Your task to perform on an android device: Where can I buy a nice beach hat? Image 0: 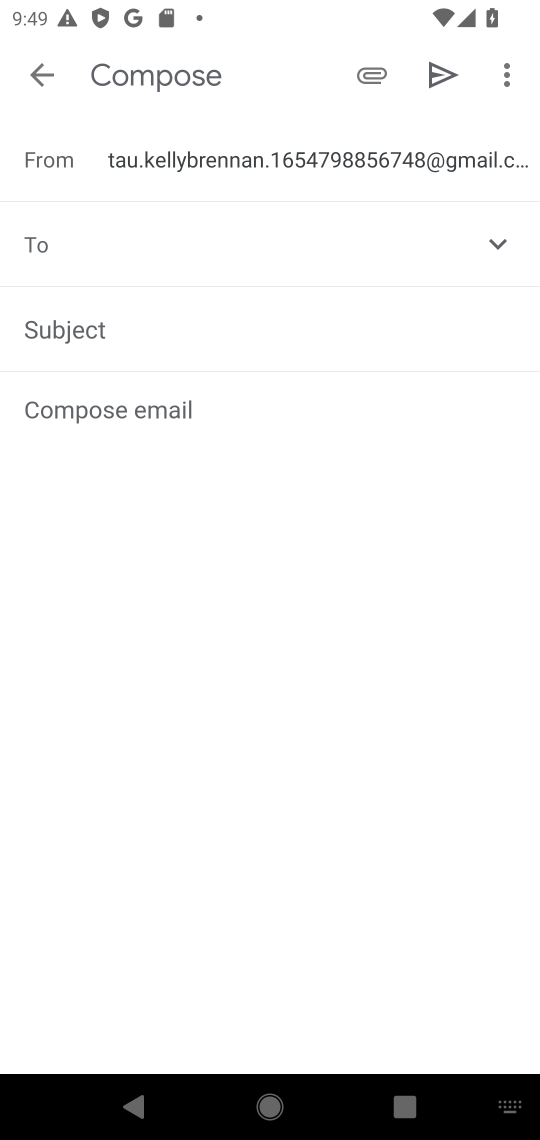
Step 0: press home button
Your task to perform on an android device: Where can I buy a nice beach hat? Image 1: 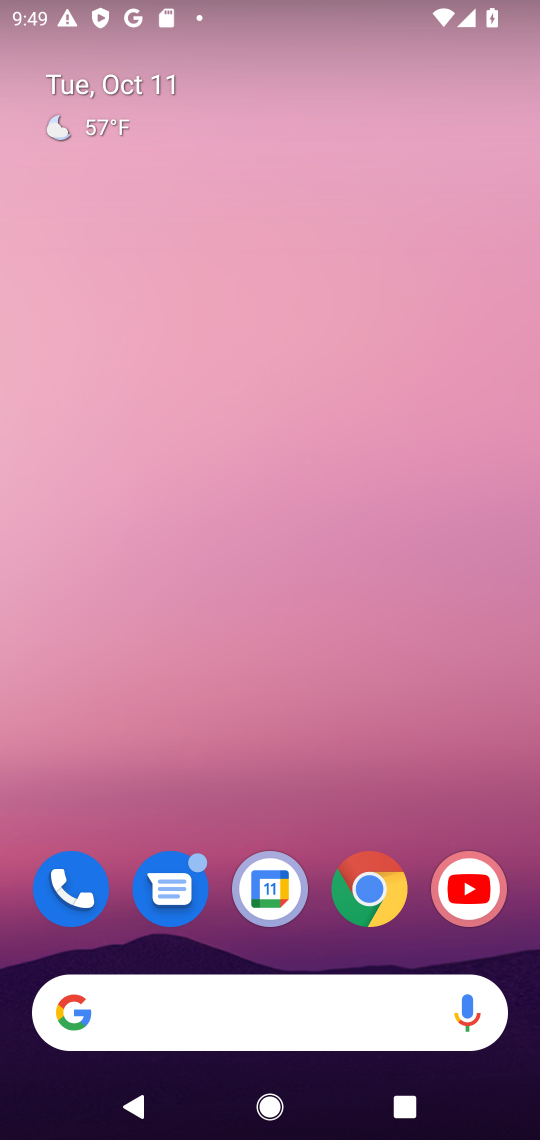
Step 1: click (263, 1002)
Your task to perform on an android device: Where can I buy a nice beach hat? Image 2: 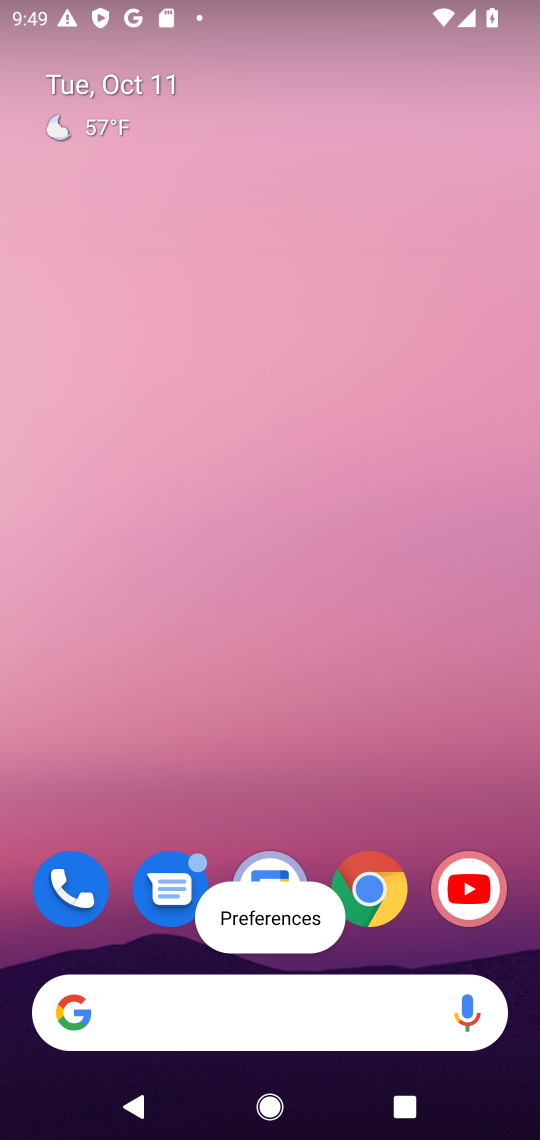
Step 2: click (254, 1022)
Your task to perform on an android device: Where can I buy a nice beach hat? Image 3: 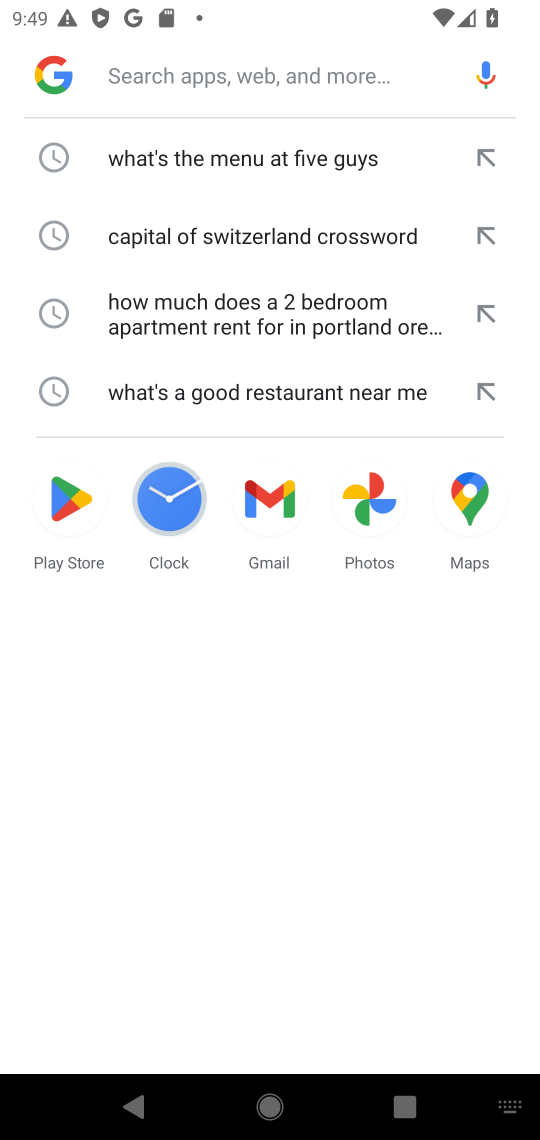
Step 3: click (152, 73)
Your task to perform on an android device: Where can I buy a nice beach hat? Image 4: 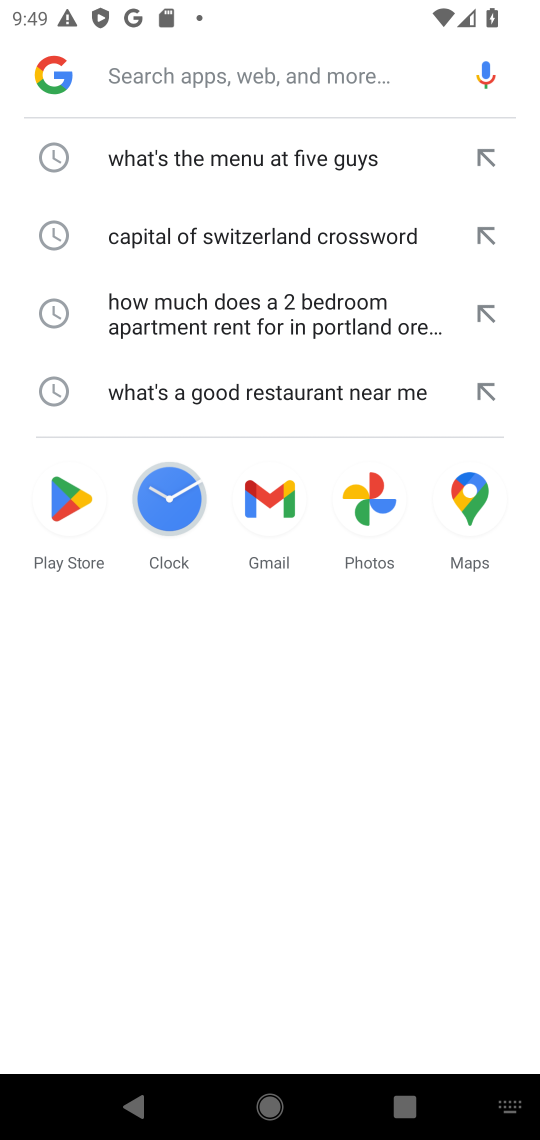
Step 4: type "Where can I buy a nice beach hat?"
Your task to perform on an android device: Where can I buy a nice beach hat? Image 5: 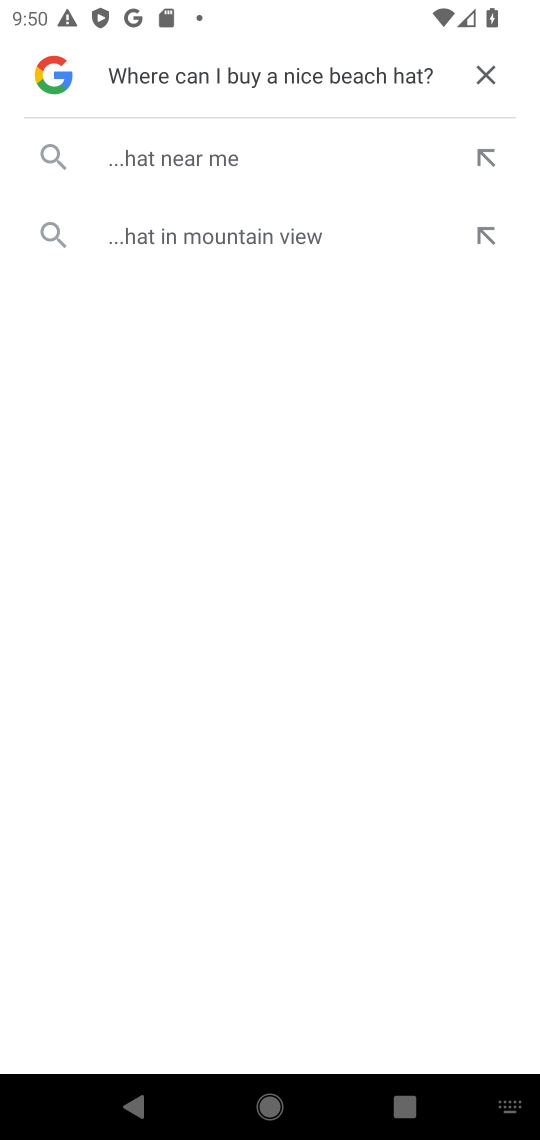
Step 5: click (231, 160)
Your task to perform on an android device: Where can I buy a nice beach hat? Image 6: 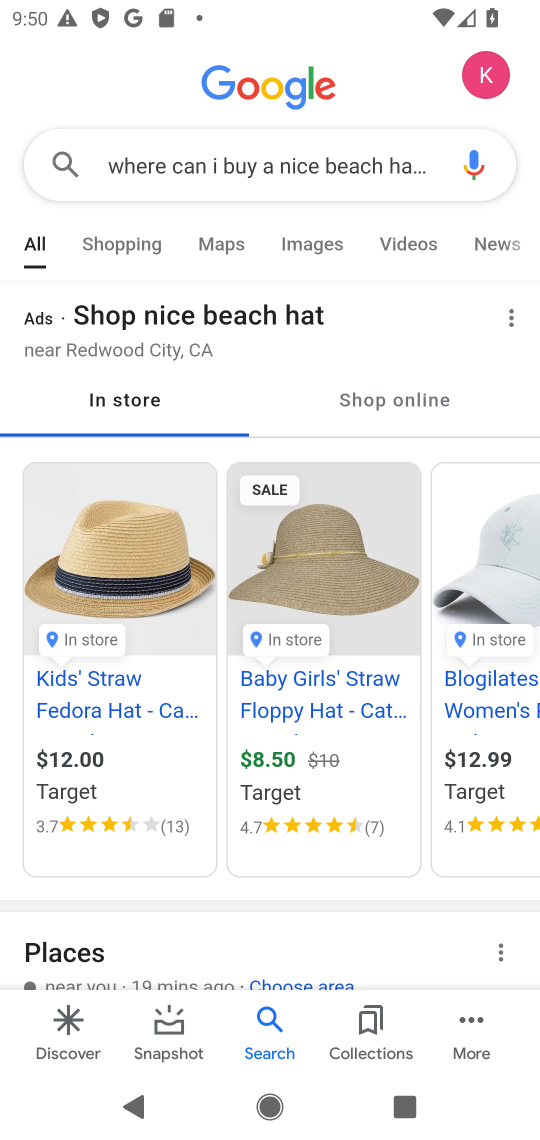
Step 6: task complete